Your task to perform on an android device: Open maps Image 0: 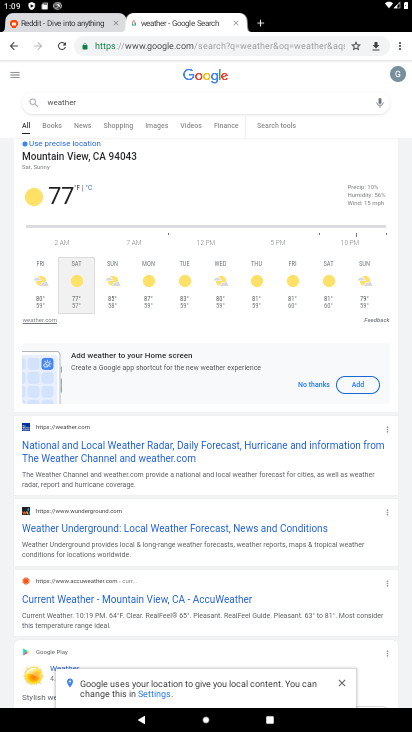
Step 0: press home button
Your task to perform on an android device: Open maps Image 1: 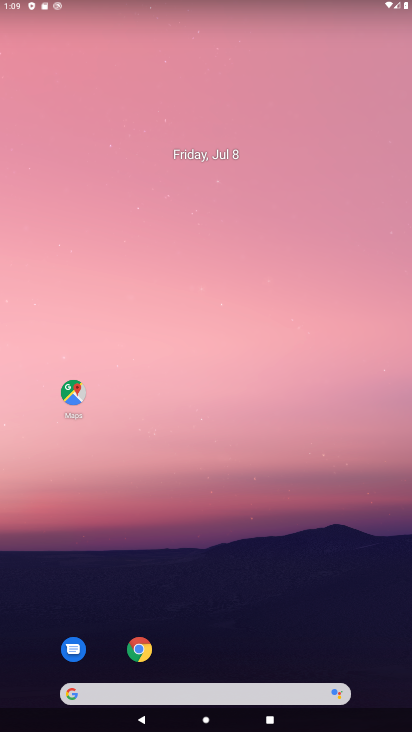
Step 1: drag from (259, 506) to (200, 135)
Your task to perform on an android device: Open maps Image 2: 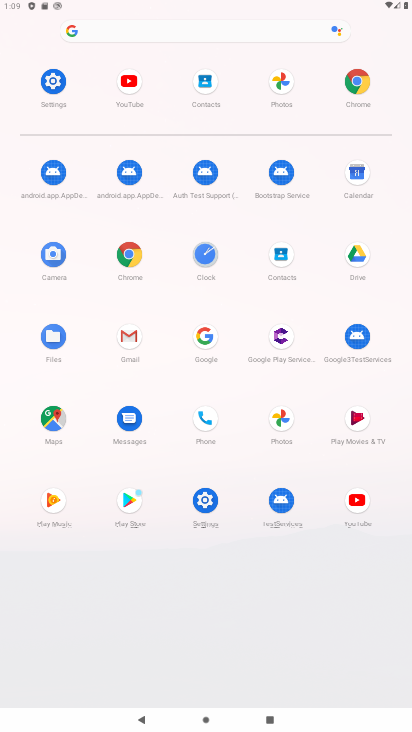
Step 2: click (50, 421)
Your task to perform on an android device: Open maps Image 3: 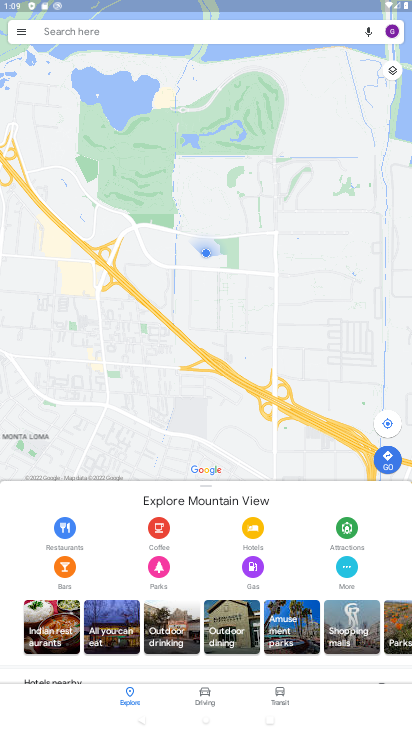
Step 3: task complete